Your task to perform on an android device: turn off javascript in the chrome app Image 0: 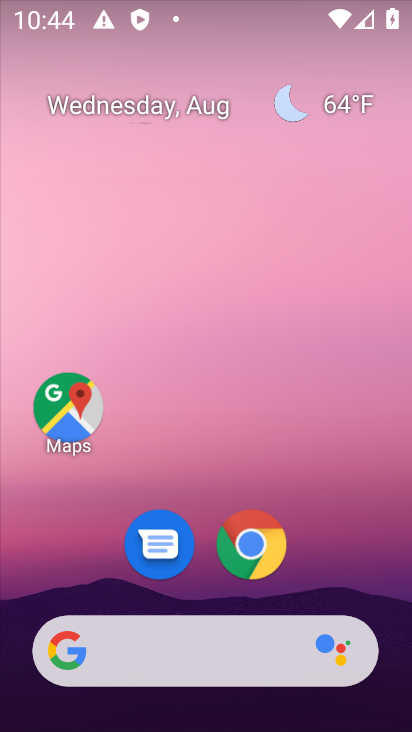
Step 0: click (210, 577)
Your task to perform on an android device: turn off javascript in the chrome app Image 1: 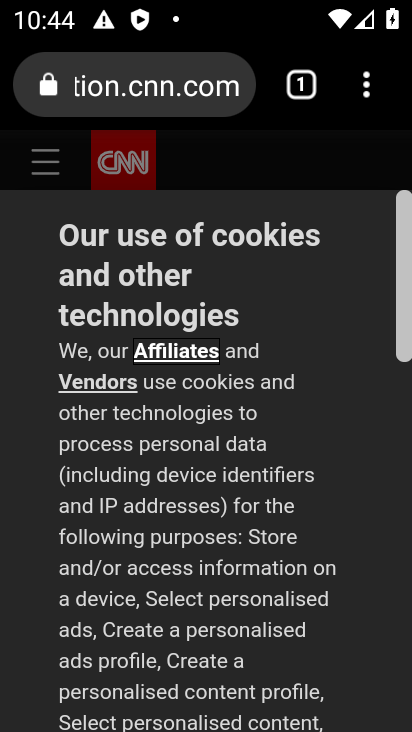
Step 1: task complete